Your task to perform on an android device: Search for Italian restaurants on Maps Image 0: 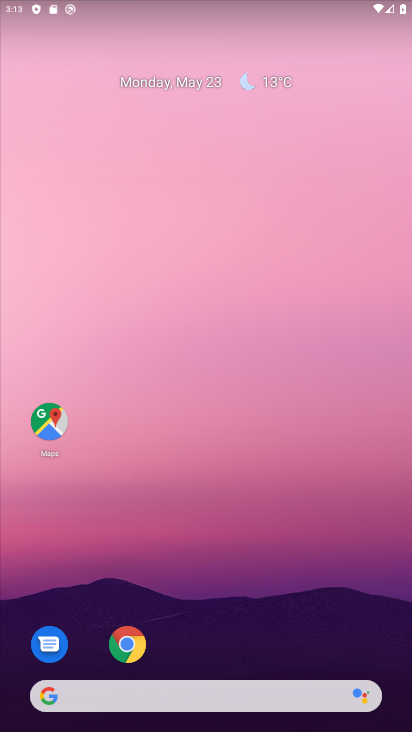
Step 0: click (63, 423)
Your task to perform on an android device: Search for Italian restaurants on Maps Image 1: 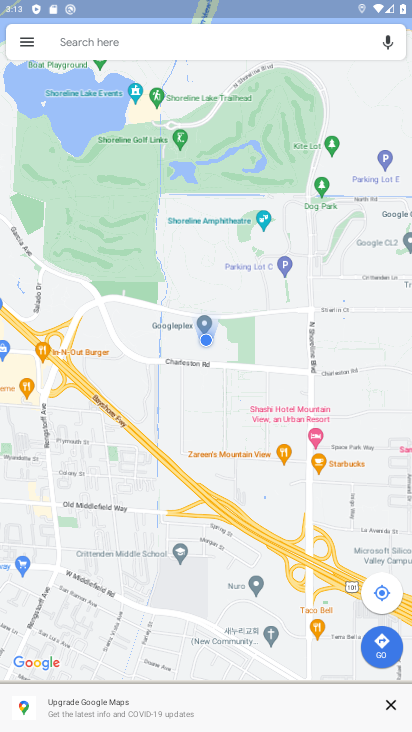
Step 1: click (237, 38)
Your task to perform on an android device: Search for Italian restaurants on Maps Image 2: 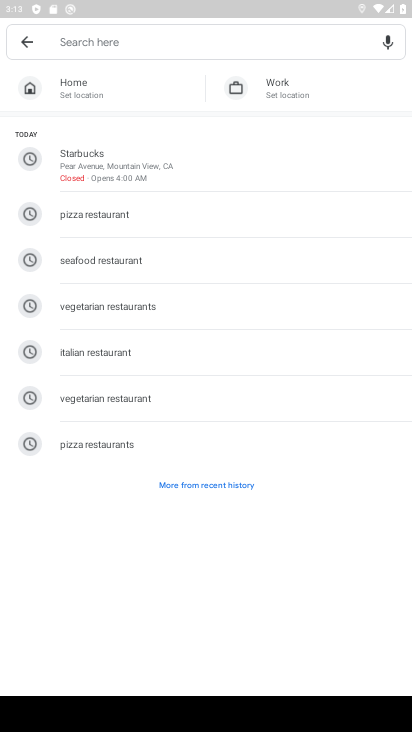
Step 2: type "Italian restaurants"
Your task to perform on an android device: Search for Italian restaurants on Maps Image 3: 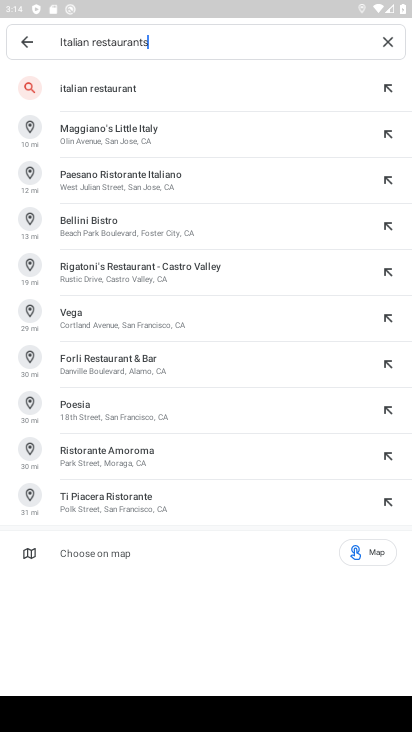
Step 3: press enter
Your task to perform on an android device: Search for Italian restaurants on Maps Image 4: 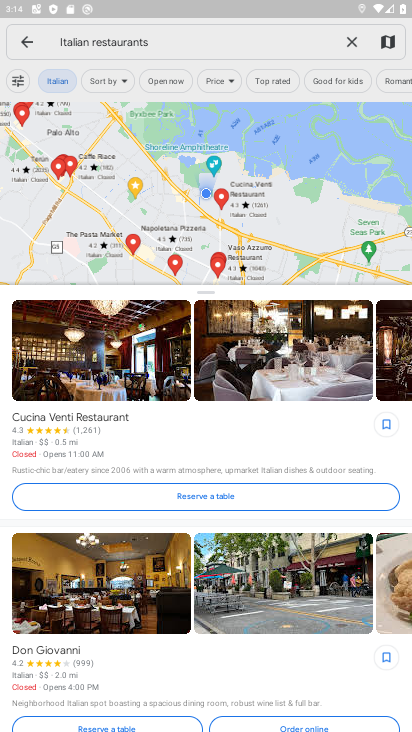
Step 4: task complete